Your task to perform on an android device: Go to accessibility settings Image 0: 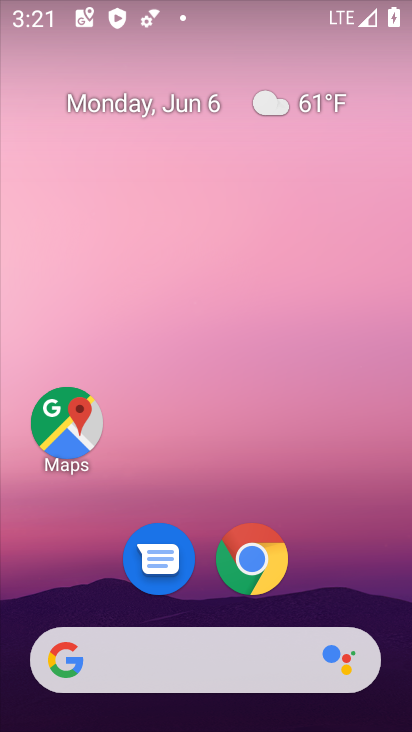
Step 0: drag from (251, 632) to (113, 727)
Your task to perform on an android device: Go to accessibility settings Image 1: 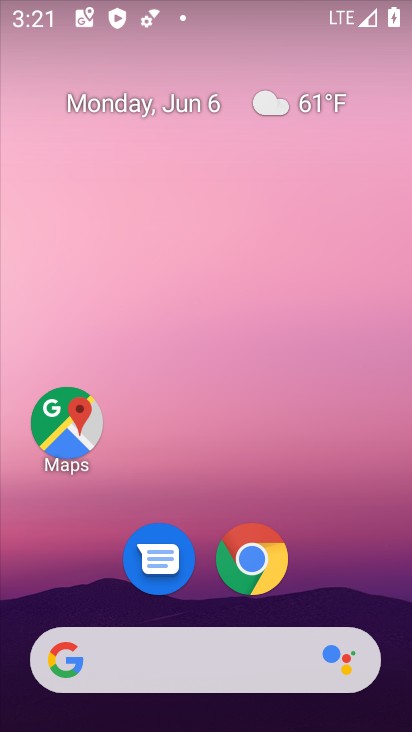
Step 1: drag from (217, 612) to (398, 47)
Your task to perform on an android device: Go to accessibility settings Image 2: 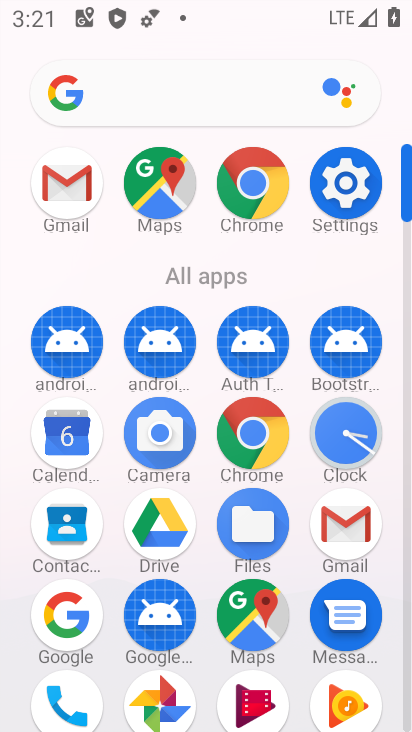
Step 2: click (344, 188)
Your task to perform on an android device: Go to accessibility settings Image 3: 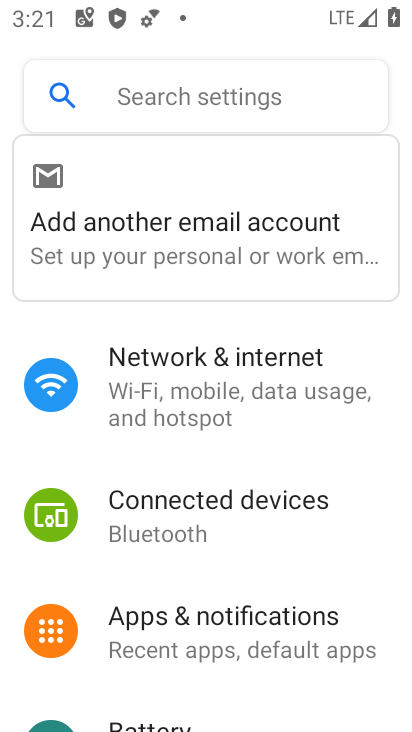
Step 3: drag from (174, 582) to (103, 18)
Your task to perform on an android device: Go to accessibility settings Image 4: 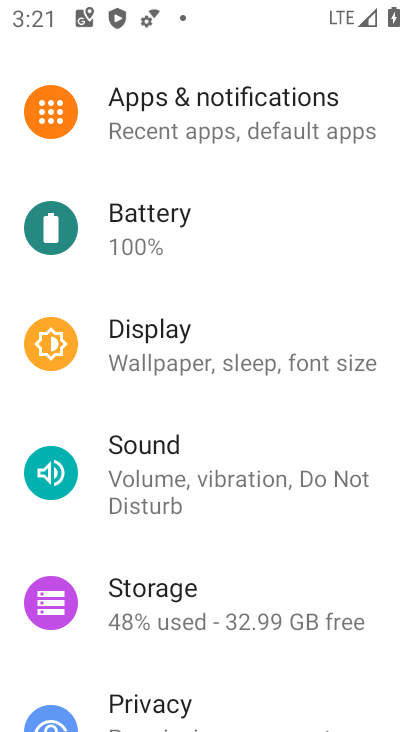
Step 4: drag from (231, 649) to (204, 61)
Your task to perform on an android device: Go to accessibility settings Image 5: 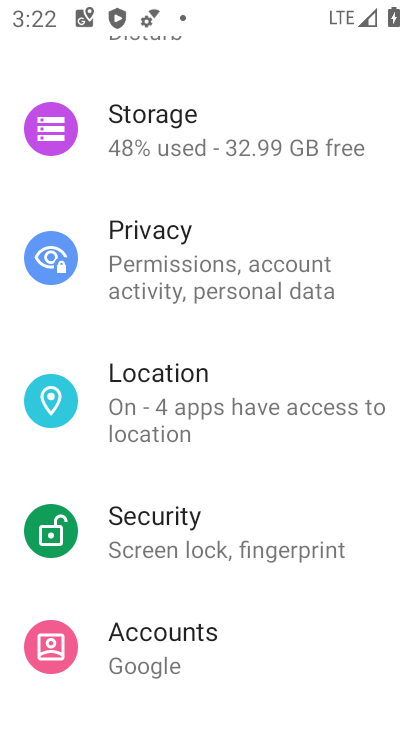
Step 5: drag from (236, 617) to (222, 167)
Your task to perform on an android device: Go to accessibility settings Image 6: 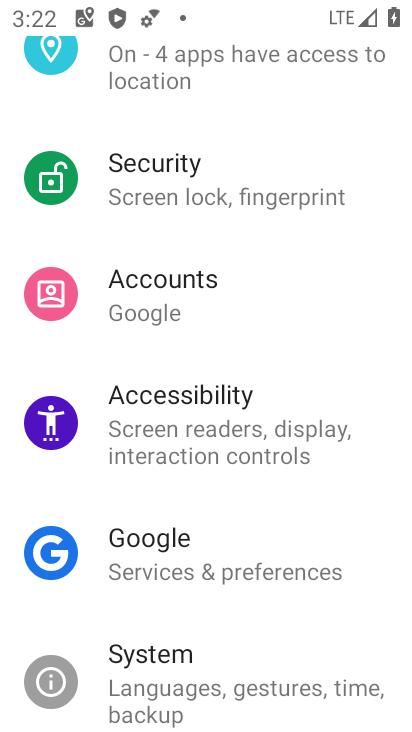
Step 6: click (218, 442)
Your task to perform on an android device: Go to accessibility settings Image 7: 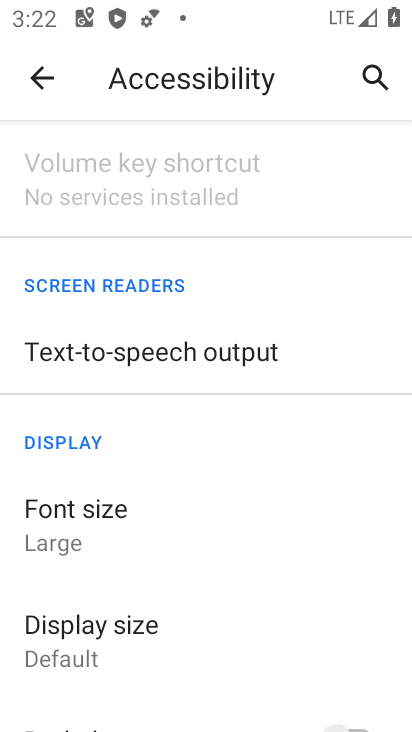
Step 7: task complete